Your task to perform on an android device: clear history in the chrome app Image 0: 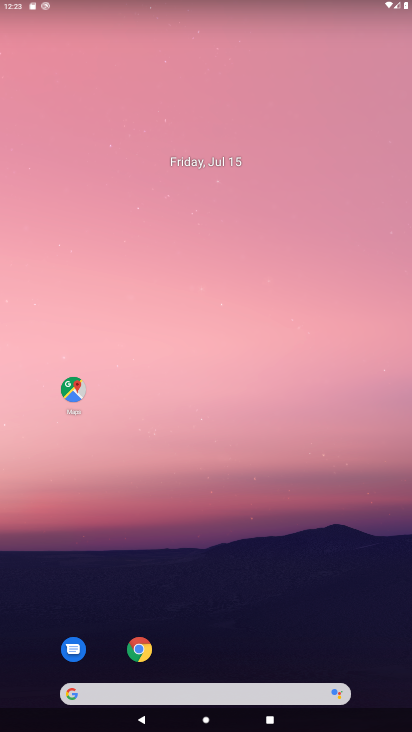
Step 0: drag from (197, 413) to (180, 35)
Your task to perform on an android device: clear history in the chrome app Image 1: 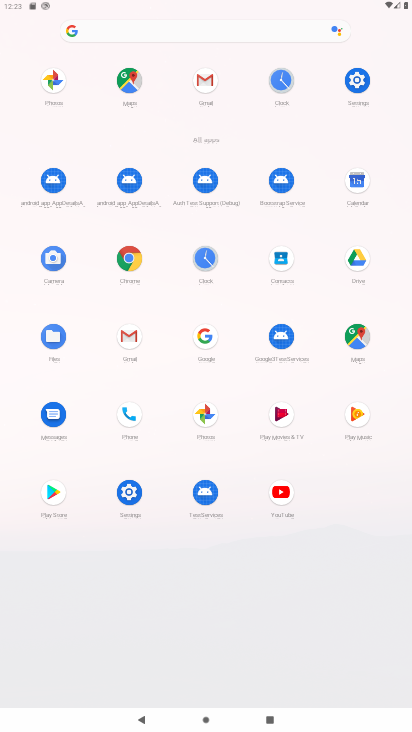
Step 1: click (133, 259)
Your task to perform on an android device: clear history in the chrome app Image 2: 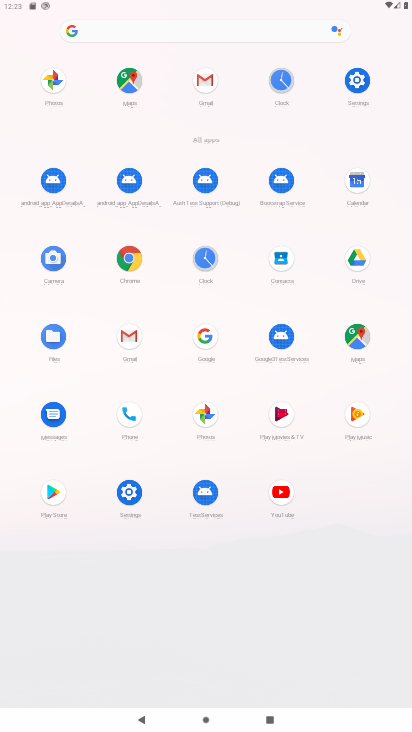
Step 2: click (133, 259)
Your task to perform on an android device: clear history in the chrome app Image 3: 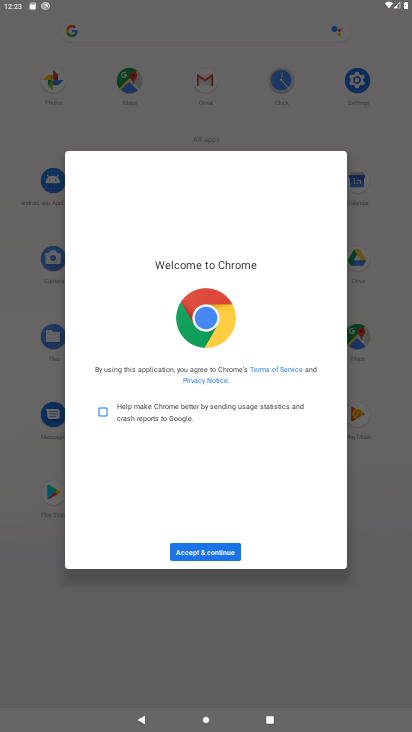
Step 3: drag from (174, 488) to (113, 52)
Your task to perform on an android device: clear history in the chrome app Image 4: 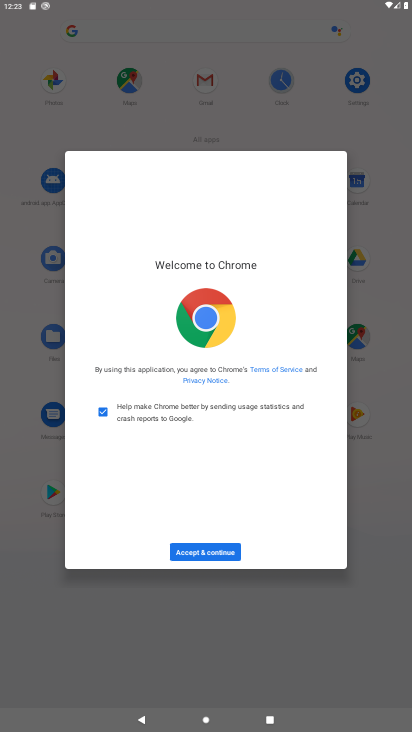
Step 4: click (211, 538)
Your task to perform on an android device: clear history in the chrome app Image 5: 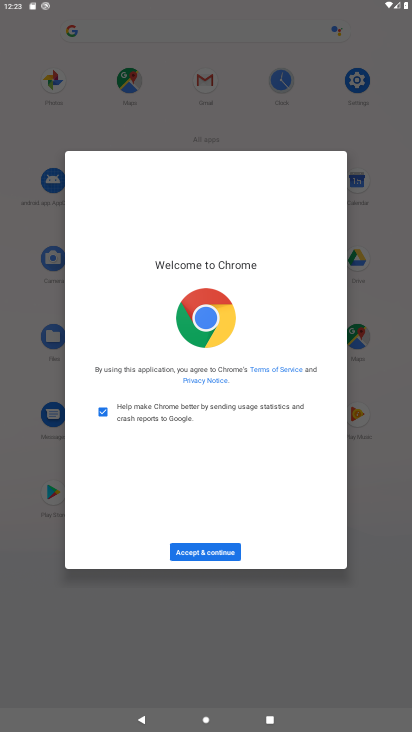
Step 5: click (212, 552)
Your task to perform on an android device: clear history in the chrome app Image 6: 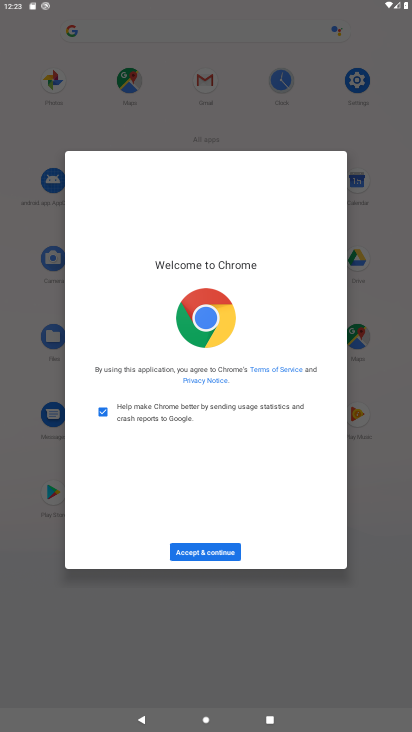
Step 6: click (224, 540)
Your task to perform on an android device: clear history in the chrome app Image 7: 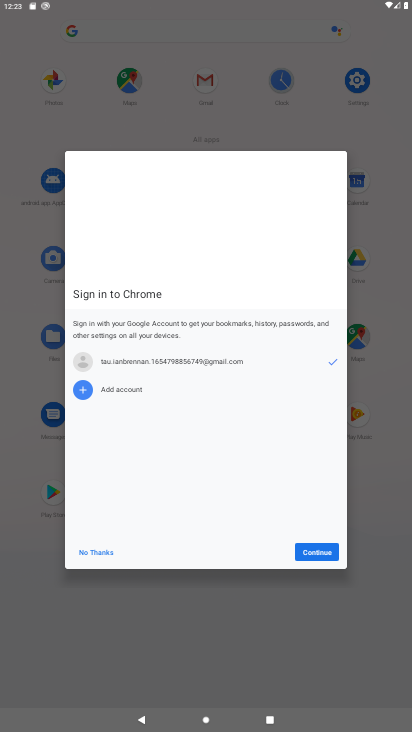
Step 7: click (220, 545)
Your task to perform on an android device: clear history in the chrome app Image 8: 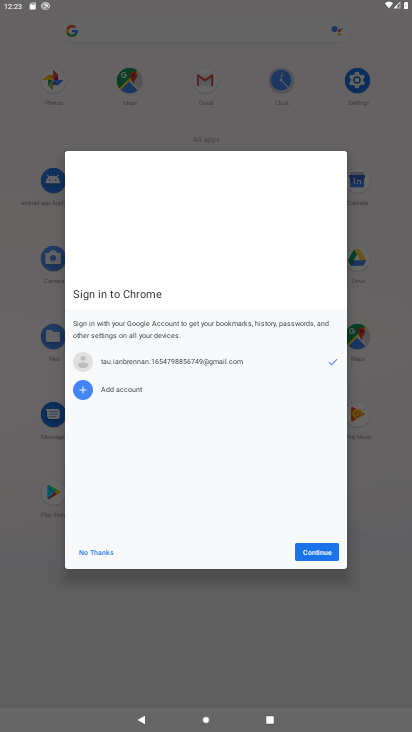
Step 8: click (309, 553)
Your task to perform on an android device: clear history in the chrome app Image 9: 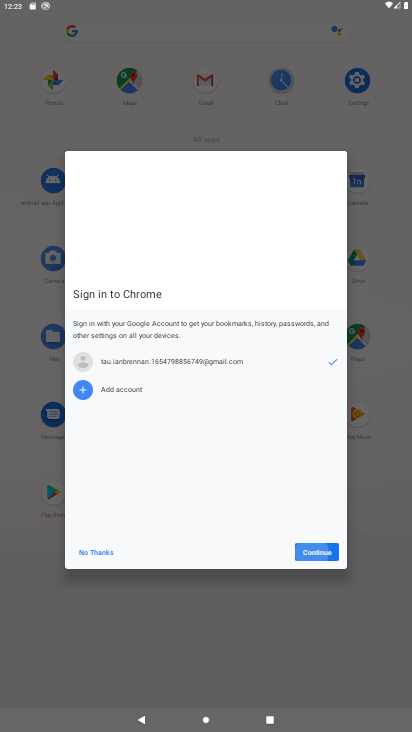
Step 9: click (316, 552)
Your task to perform on an android device: clear history in the chrome app Image 10: 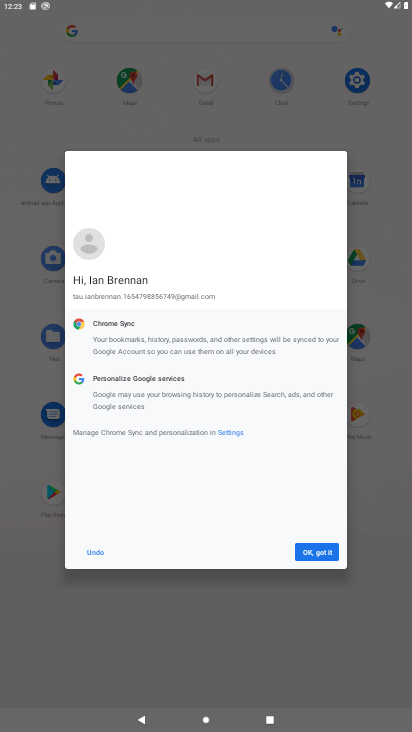
Step 10: click (327, 566)
Your task to perform on an android device: clear history in the chrome app Image 11: 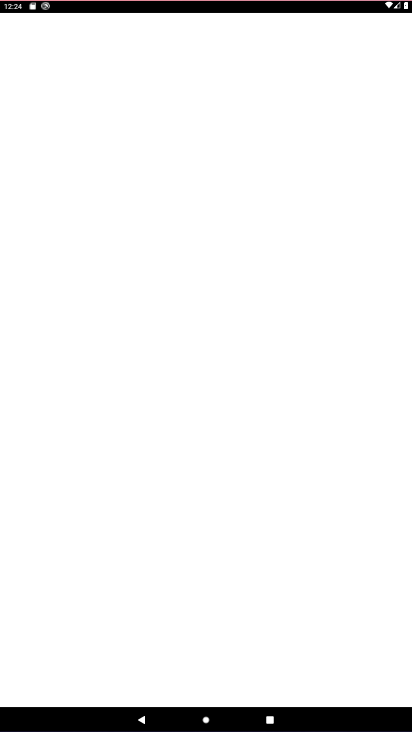
Step 11: click (309, 550)
Your task to perform on an android device: clear history in the chrome app Image 12: 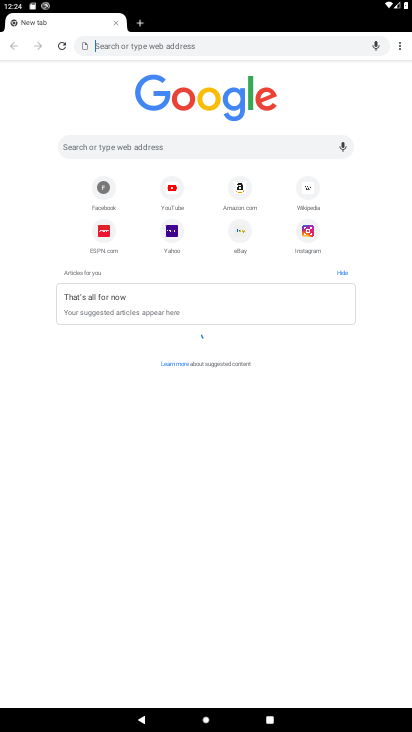
Step 12: drag from (398, 49) to (323, 136)
Your task to perform on an android device: clear history in the chrome app Image 13: 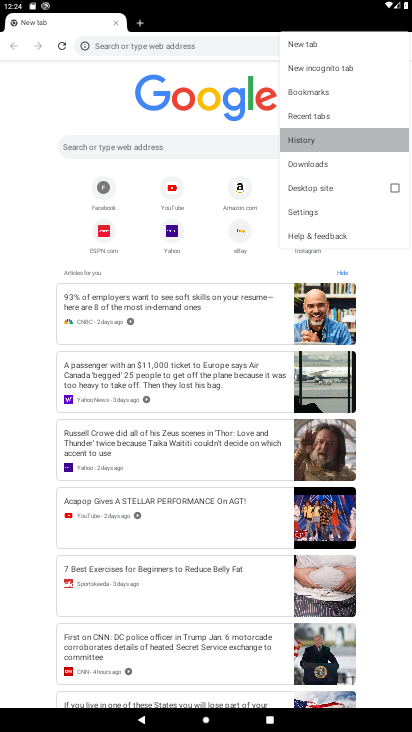
Step 13: click (323, 136)
Your task to perform on an android device: clear history in the chrome app Image 14: 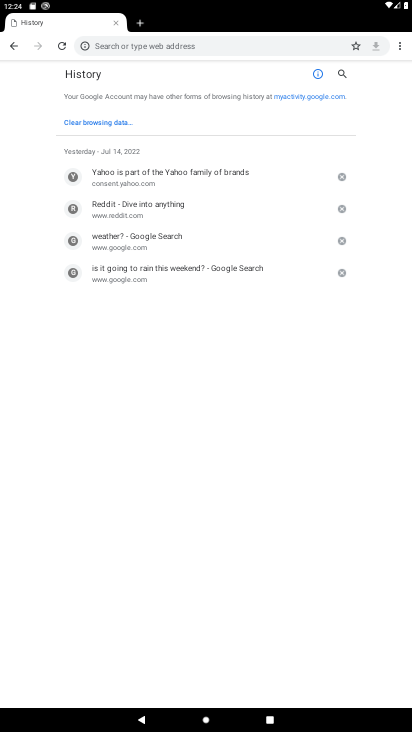
Step 14: task complete